Your task to perform on an android device: check android version Image 0: 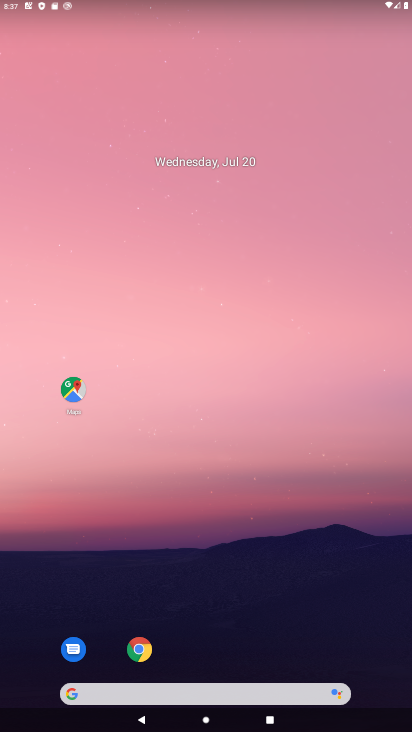
Step 0: drag from (200, 695) to (221, 28)
Your task to perform on an android device: check android version Image 1: 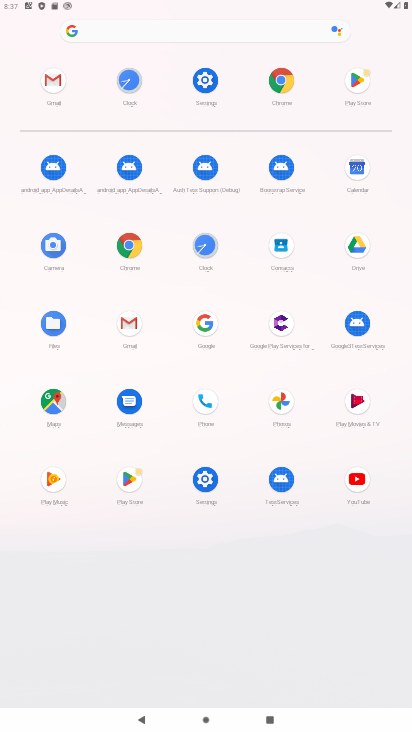
Step 1: click (205, 80)
Your task to perform on an android device: check android version Image 2: 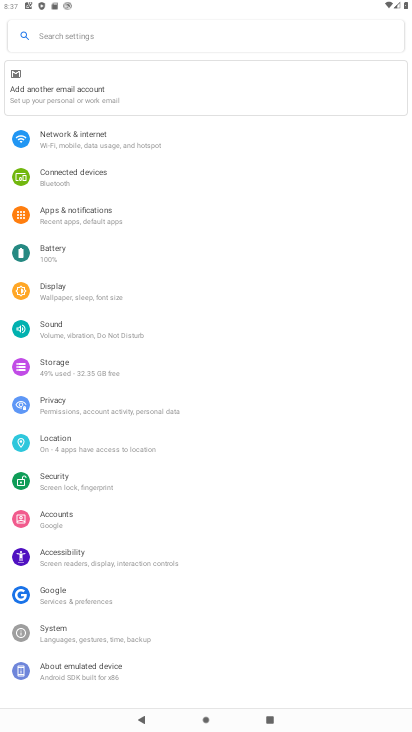
Step 2: drag from (77, 462) to (127, 369)
Your task to perform on an android device: check android version Image 3: 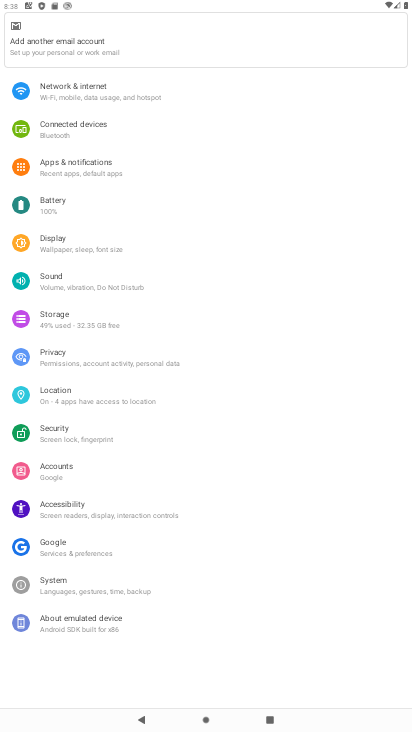
Step 3: click (78, 624)
Your task to perform on an android device: check android version Image 4: 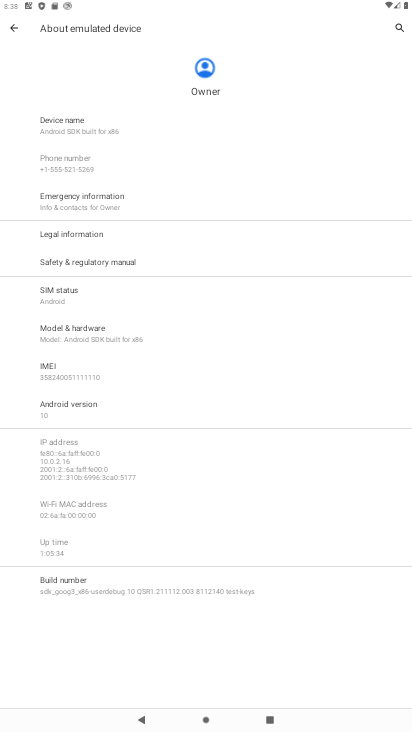
Step 4: click (86, 402)
Your task to perform on an android device: check android version Image 5: 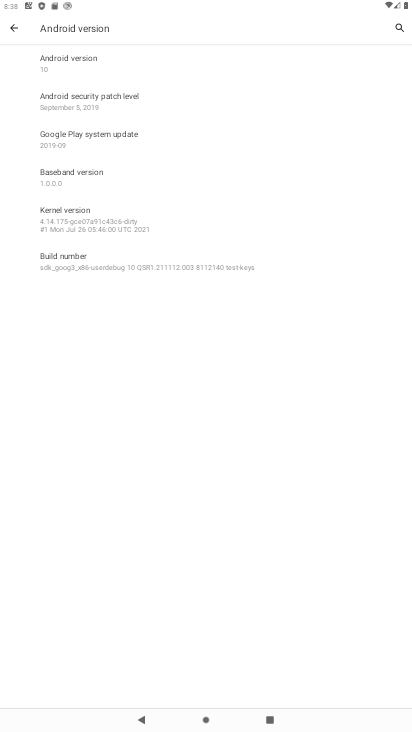
Step 5: task complete